Your task to perform on an android device: turn on the 12-hour format for clock Image 0: 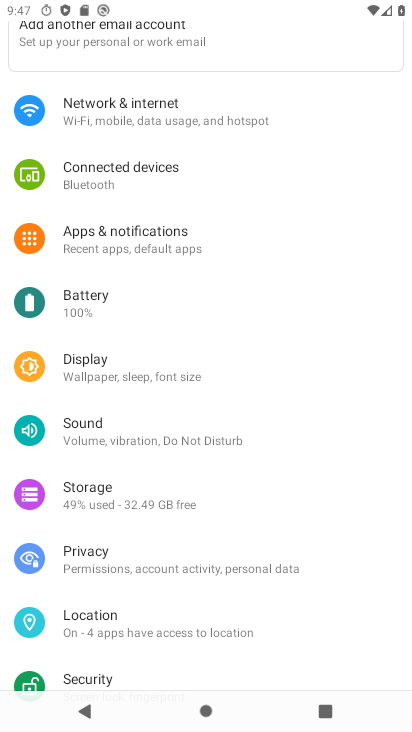
Step 0: press home button
Your task to perform on an android device: turn on the 12-hour format for clock Image 1: 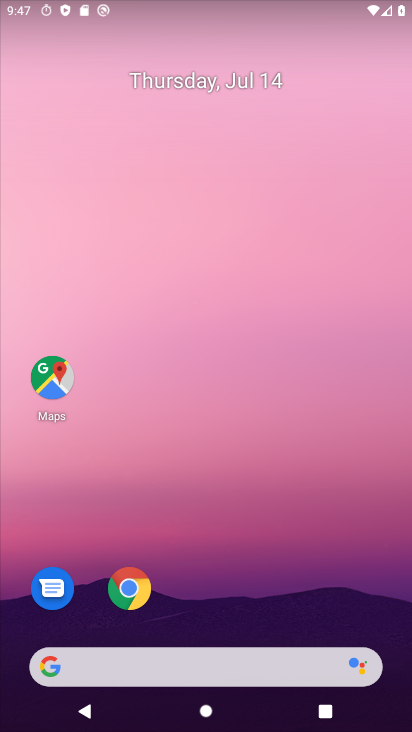
Step 1: drag from (184, 617) to (159, 246)
Your task to perform on an android device: turn on the 12-hour format for clock Image 2: 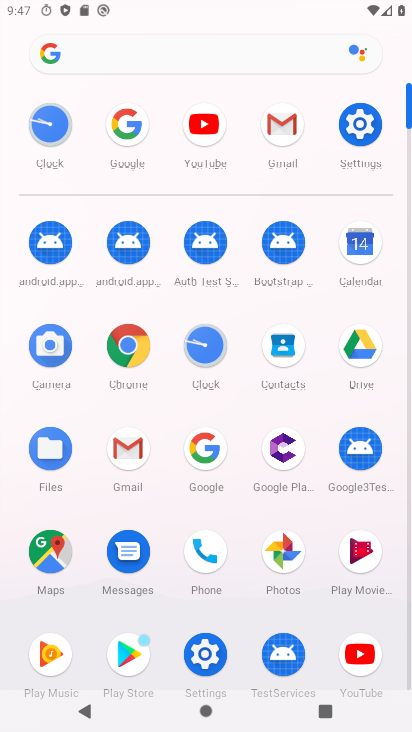
Step 2: click (47, 130)
Your task to perform on an android device: turn on the 12-hour format for clock Image 3: 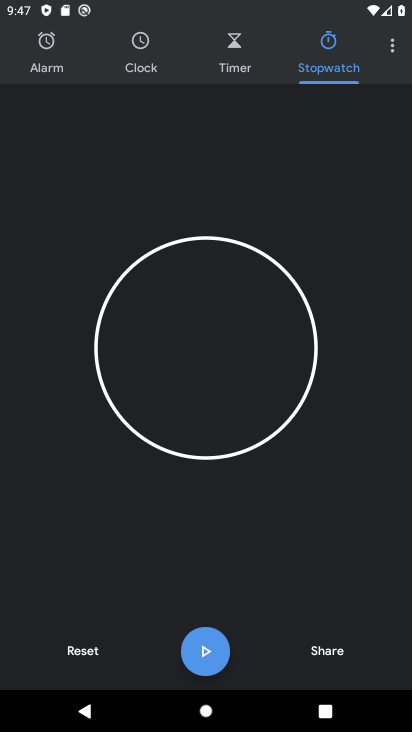
Step 3: click (386, 49)
Your task to perform on an android device: turn on the 12-hour format for clock Image 4: 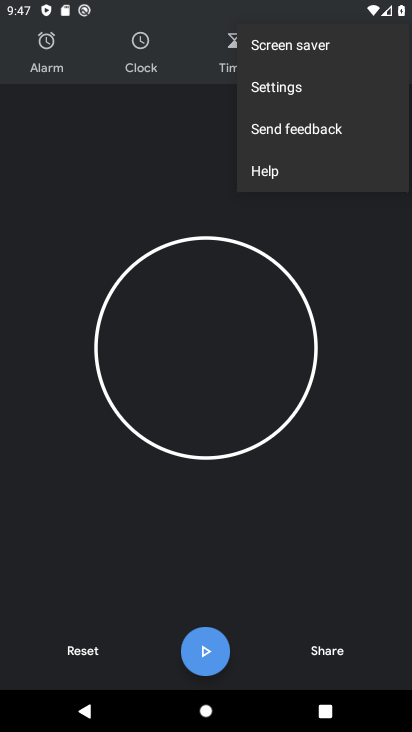
Step 4: click (279, 83)
Your task to perform on an android device: turn on the 12-hour format for clock Image 5: 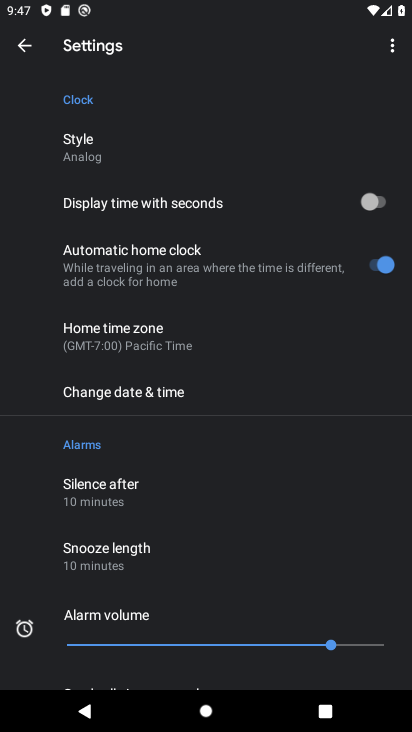
Step 5: click (89, 393)
Your task to perform on an android device: turn on the 12-hour format for clock Image 6: 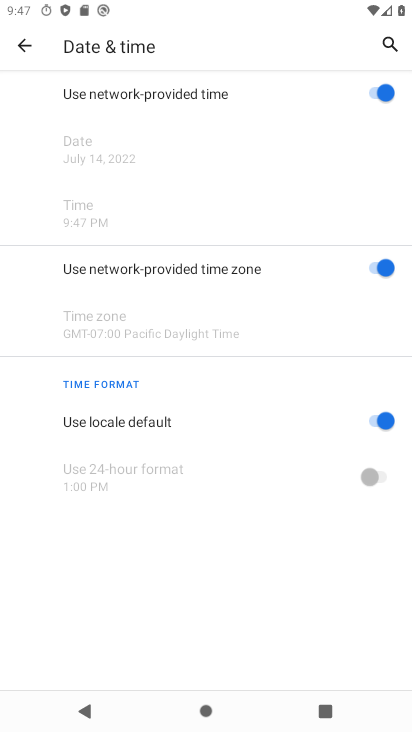
Step 6: task complete